Your task to perform on an android device: change the clock style Image 0: 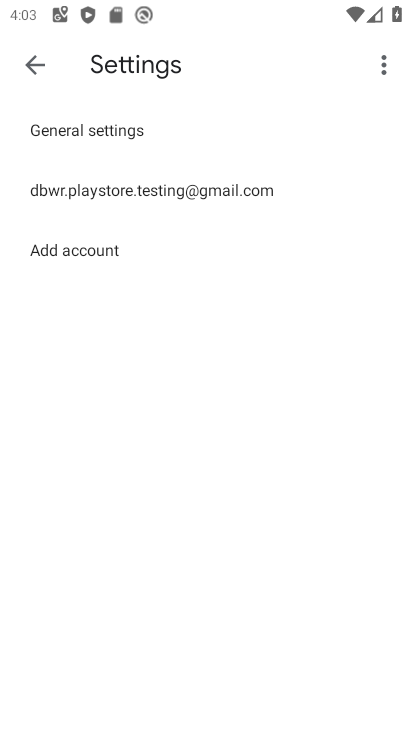
Step 0: press home button
Your task to perform on an android device: change the clock style Image 1: 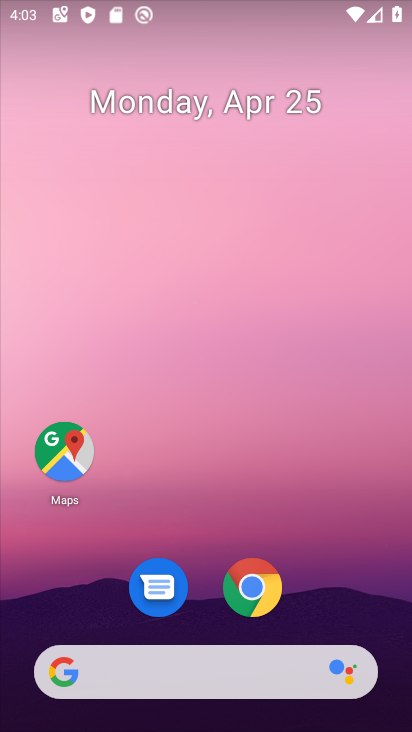
Step 1: drag from (378, 478) to (366, 32)
Your task to perform on an android device: change the clock style Image 2: 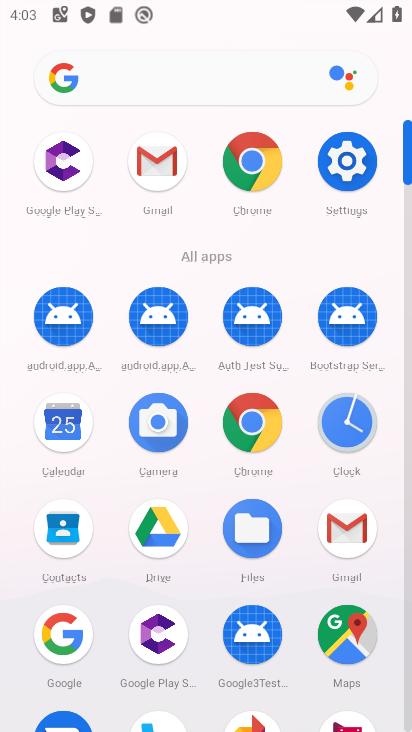
Step 2: click (351, 423)
Your task to perform on an android device: change the clock style Image 3: 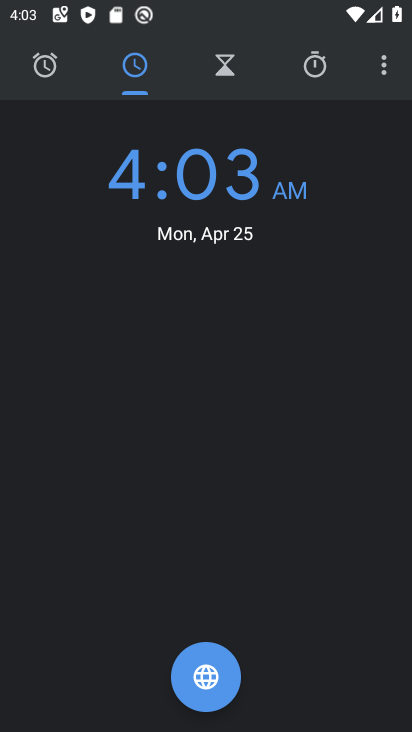
Step 3: click (380, 69)
Your task to perform on an android device: change the clock style Image 4: 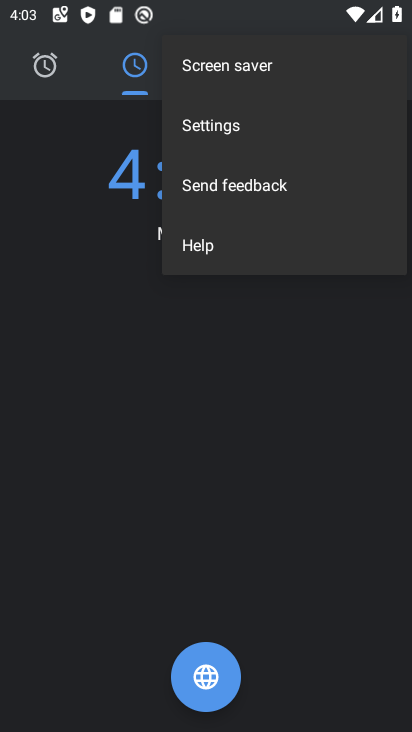
Step 4: click (195, 130)
Your task to perform on an android device: change the clock style Image 5: 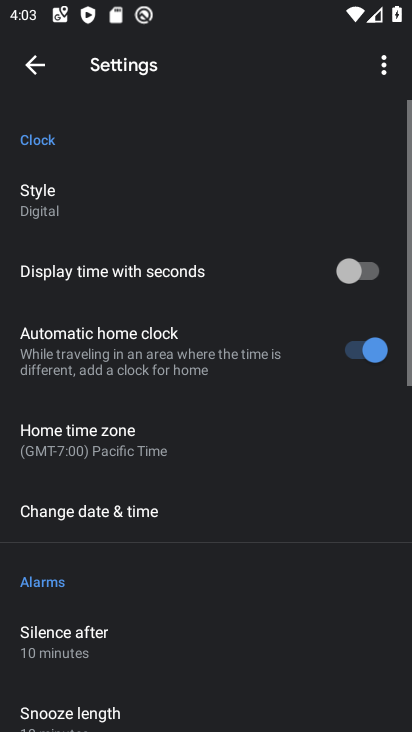
Step 5: click (54, 213)
Your task to perform on an android device: change the clock style Image 6: 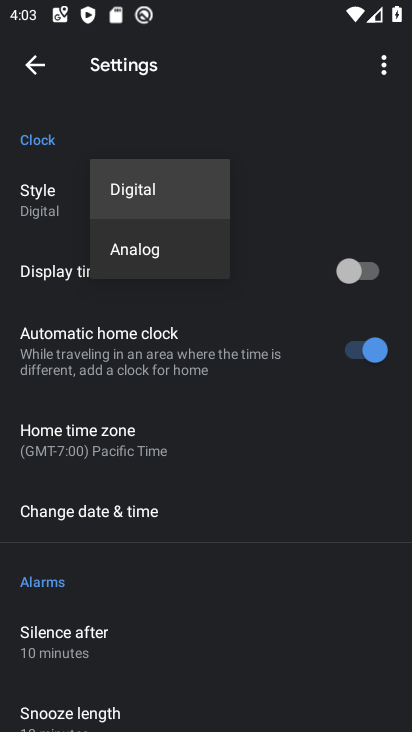
Step 6: click (145, 256)
Your task to perform on an android device: change the clock style Image 7: 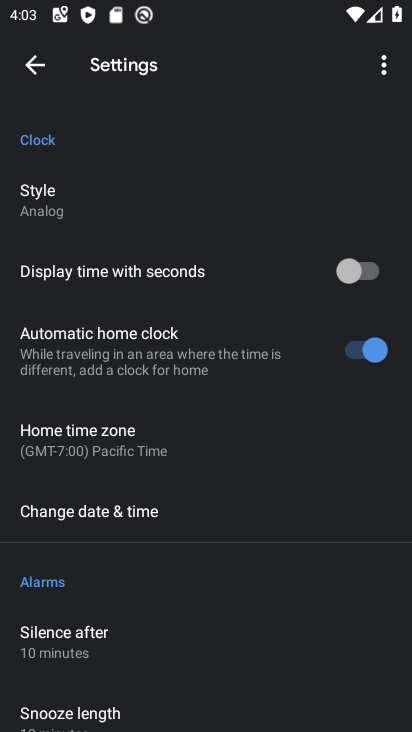
Step 7: task complete